Your task to perform on an android device: change the clock style Image 0: 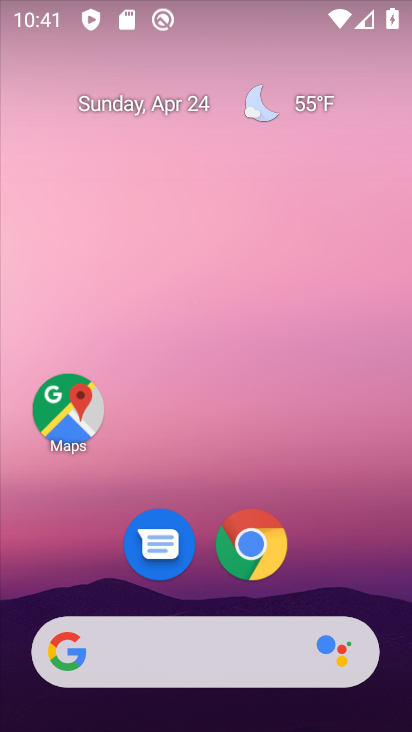
Step 0: drag from (327, 535) to (290, 65)
Your task to perform on an android device: change the clock style Image 1: 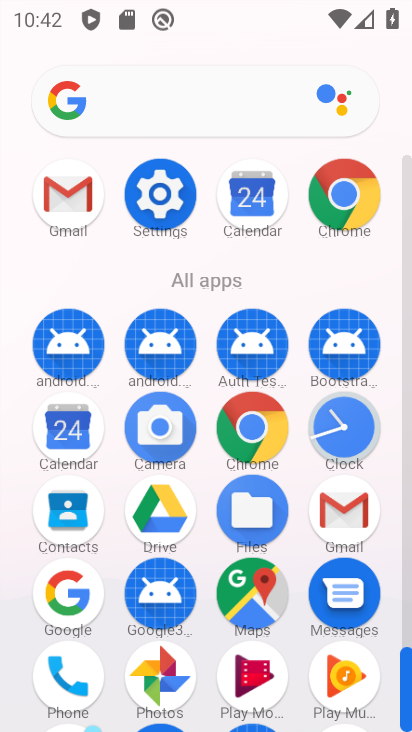
Step 1: click (344, 417)
Your task to perform on an android device: change the clock style Image 2: 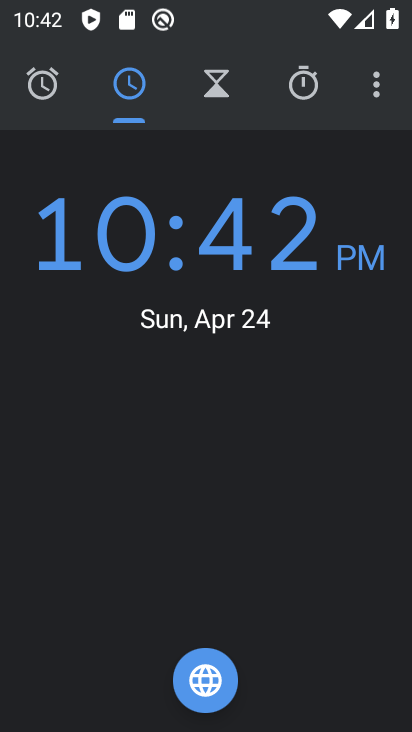
Step 2: click (381, 90)
Your task to perform on an android device: change the clock style Image 3: 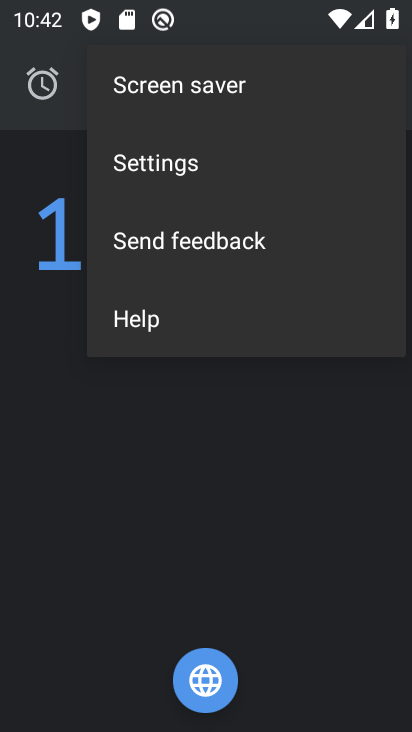
Step 3: click (142, 159)
Your task to perform on an android device: change the clock style Image 4: 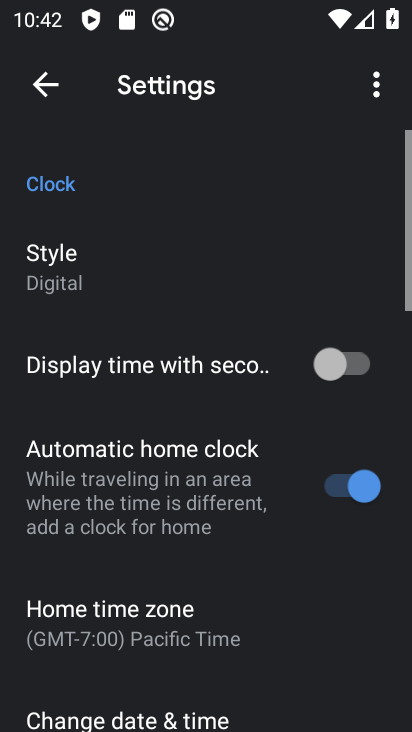
Step 4: click (51, 277)
Your task to perform on an android device: change the clock style Image 5: 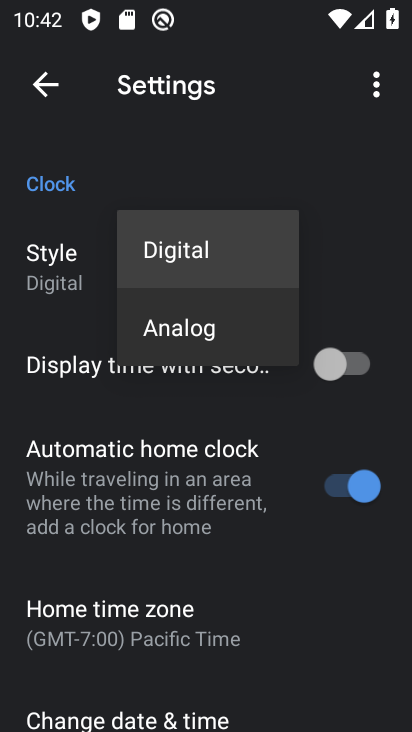
Step 5: click (165, 329)
Your task to perform on an android device: change the clock style Image 6: 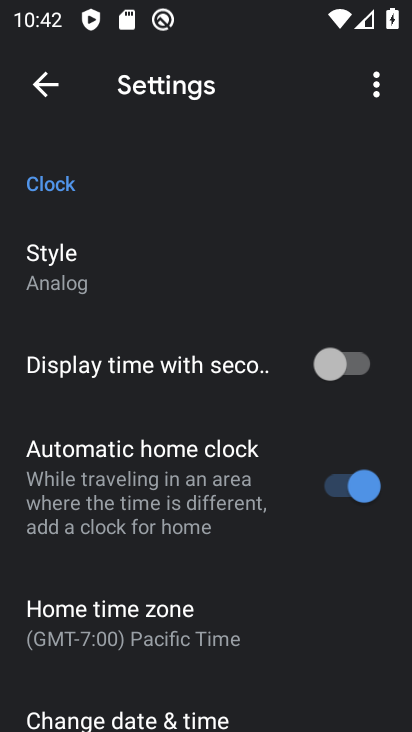
Step 6: task complete